Your task to perform on an android device: change the clock display to digital Image 0: 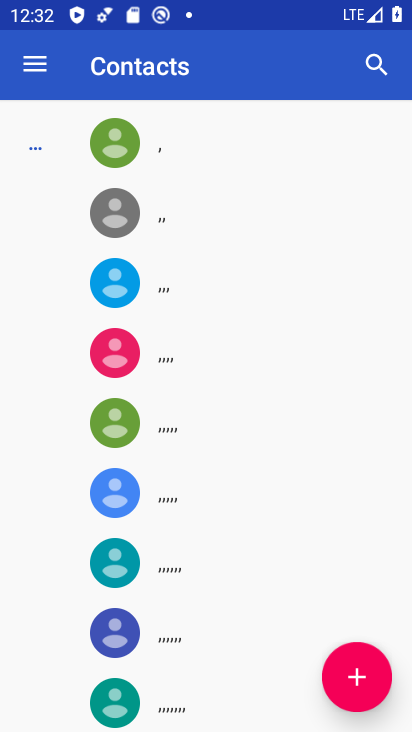
Step 0: press home button
Your task to perform on an android device: change the clock display to digital Image 1: 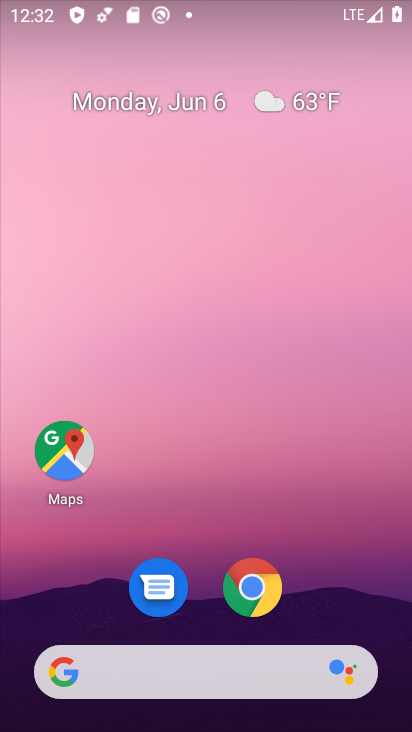
Step 1: drag from (342, 598) to (251, 175)
Your task to perform on an android device: change the clock display to digital Image 2: 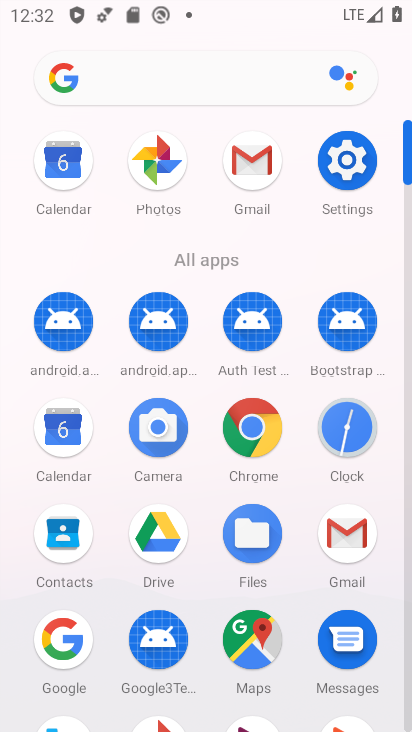
Step 2: click (362, 427)
Your task to perform on an android device: change the clock display to digital Image 3: 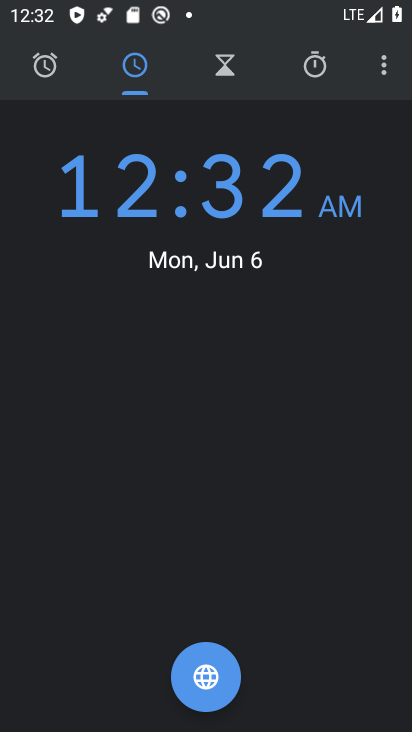
Step 3: click (380, 73)
Your task to perform on an android device: change the clock display to digital Image 4: 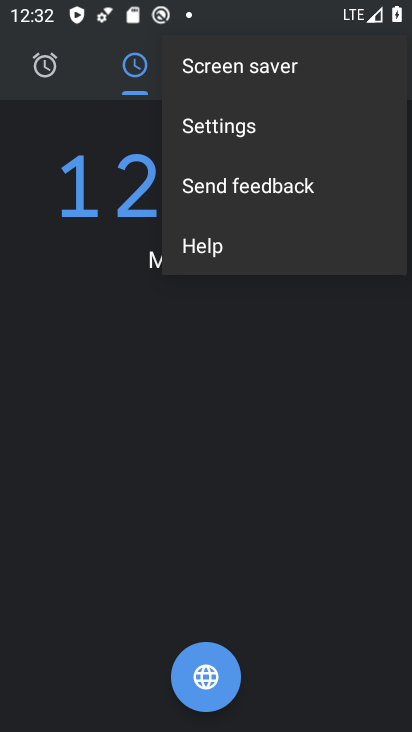
Step 4: click (334, 132)
Your task to perform on an android device: change the clock display to digital Image 5: 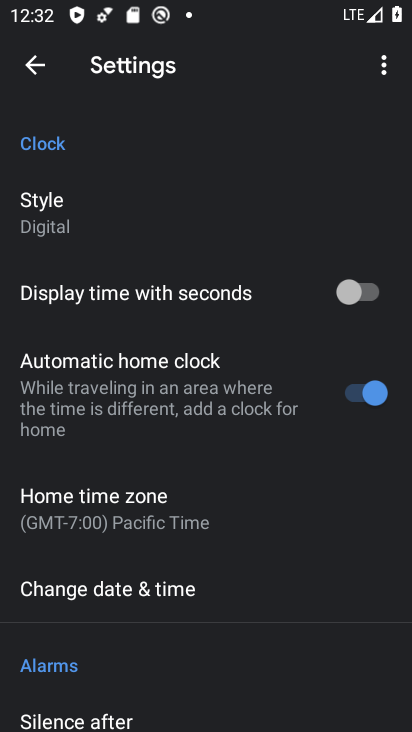
Step 5: click (214, 223)
Your task to perform on an android device: change the clock display to digital Image 6: 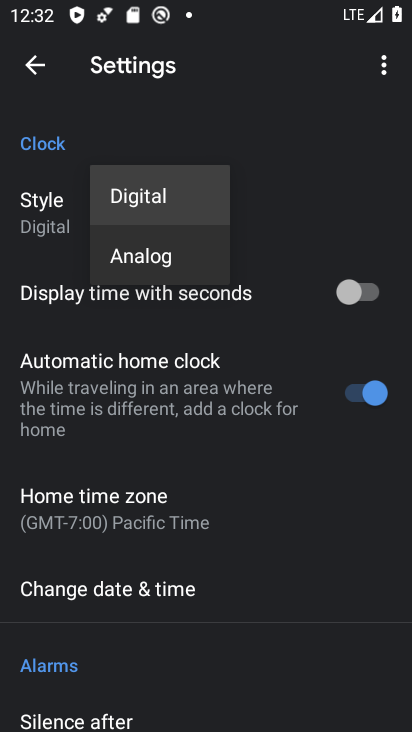
Step 6: task complete